Your task to perform on an android device: find photos in the google photos app Image 0: 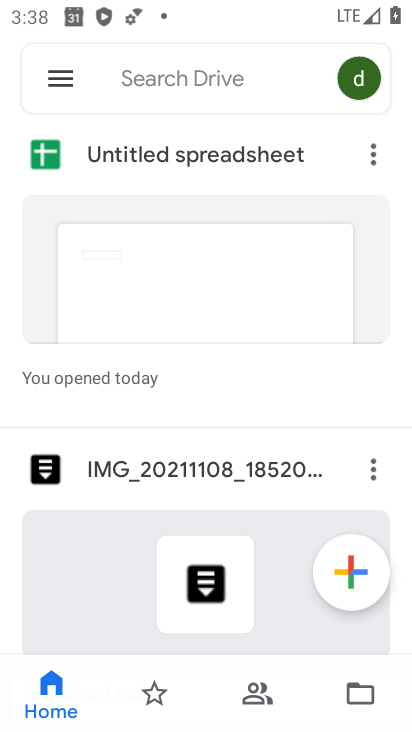
Step 0: press home button
Your task to perform on an android device: find photos in the google photos app Image 1: 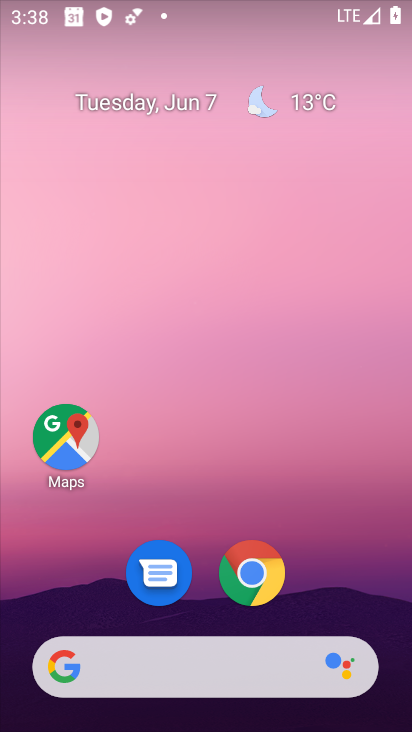
Step 1: drag from (326, 596) to (161, 141)
Your task to perform on an android device: find photos in the google photos app Image 2: 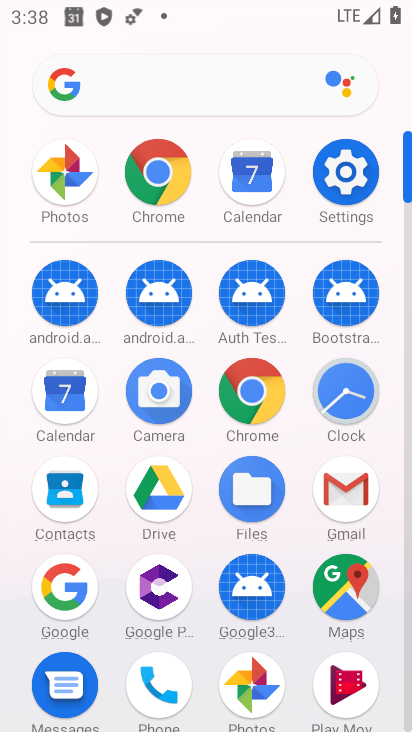
Step 2: click (49, 166)
Your task to perform on an android device: find photos in the google photos app Image 3: 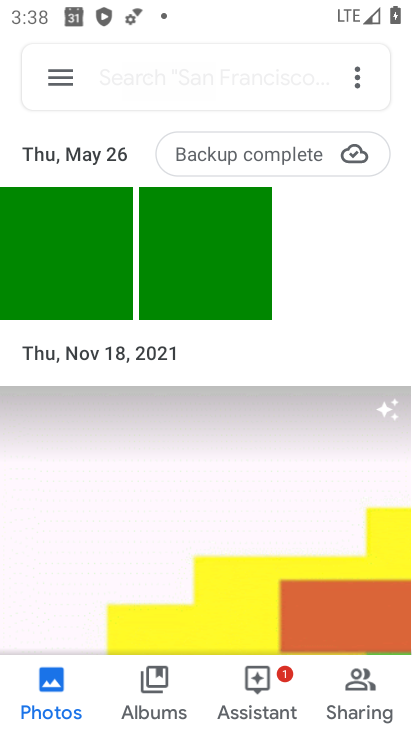
Step 3: task complete